Your task to perform on an android device: toggle data saver in the chrome app Image 0: 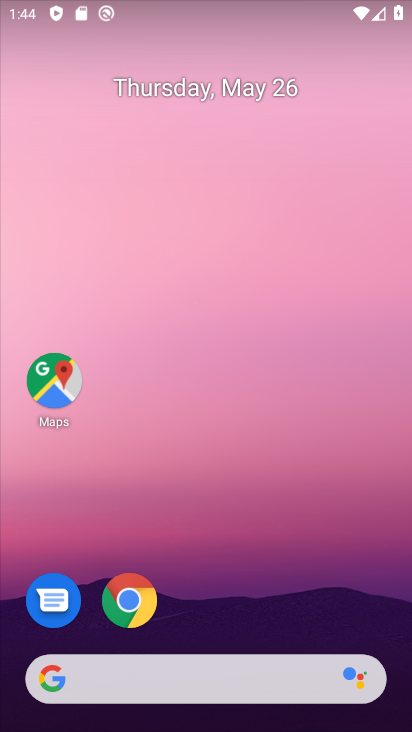
Step 0: drag from (238, 500) to (156, 24)
Your task to perform on an android device: toggle data saver in the chrome app Image 1: 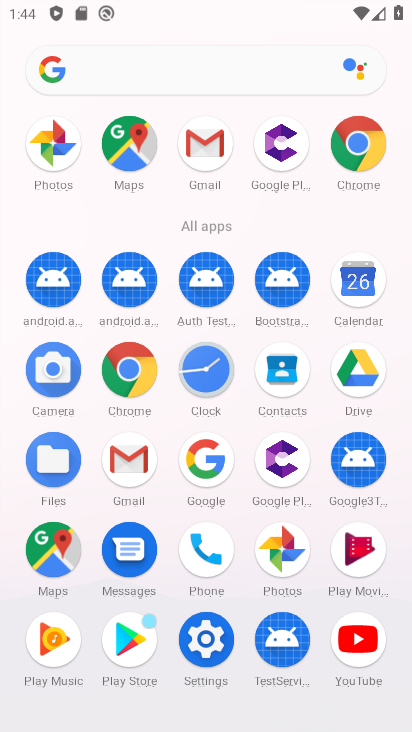
Step 1: drag from (14, 415) to (21, 227)
Your task to perform on an android device: toggle data saver in the chrome app Image 2: 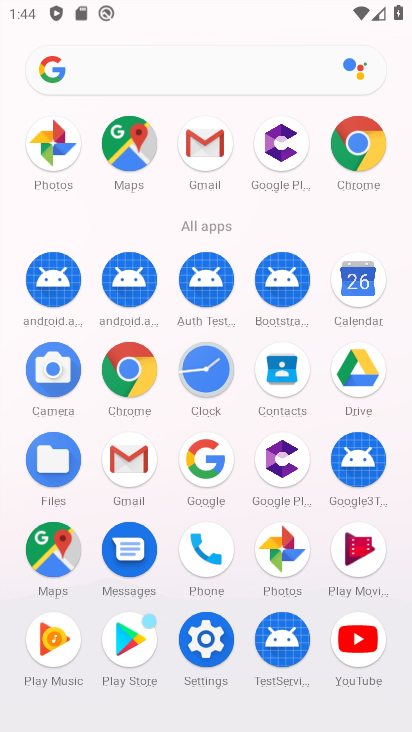
Step 2: click (125, 370)
Your task to perform on an android device: toggle data saver in the chrome app Image 3: 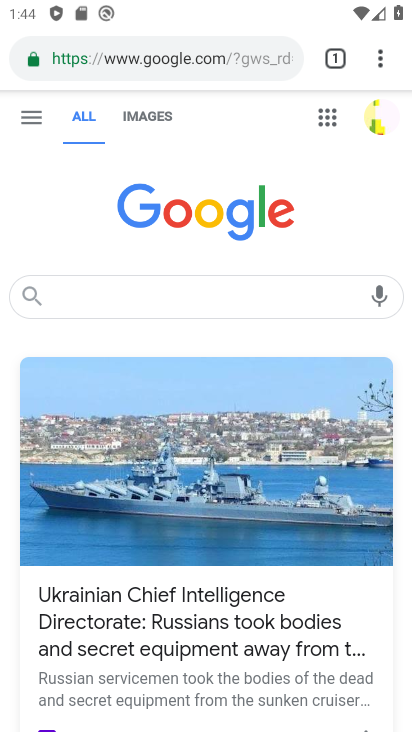
Step 3: drag from (379, 57) to (171, 648)
Your task to perform on an android device: toggle data saver in the chrome app Image 4: 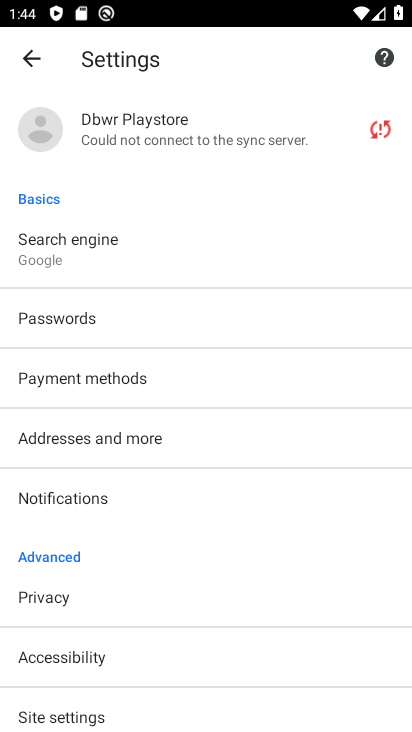
Step 4: drag from (217, 620) to (219, 289)
Your task to perform on an android device: toggle data saver in the chrome app Image 5: 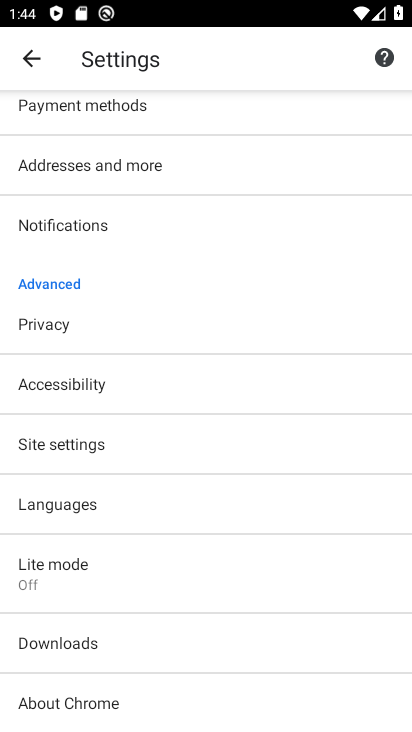
Step 5: click (114, 563)
Your task to perform on an android device: toggle data saver in the chrome app Image 6: 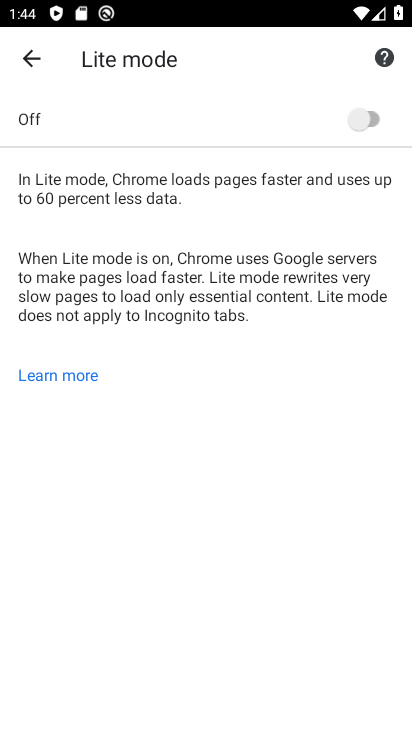
Step 6: click (373, 112)
Your task to perform on an android device: toggle data saver in the chrome app Image 7: 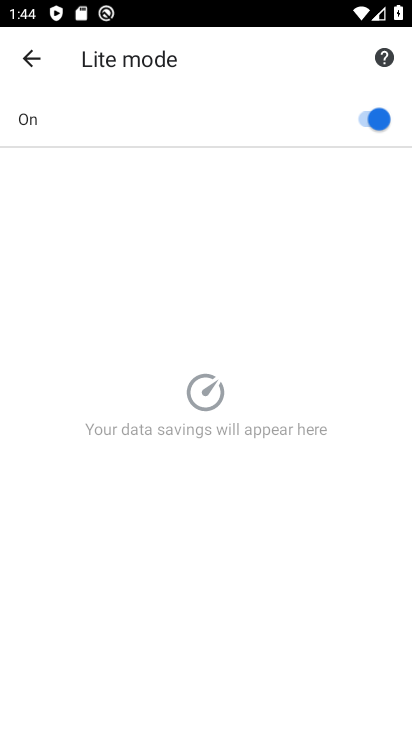
Step 7: task complete